Your task to perform on an android device: Open settings on Google Maps Image 0: 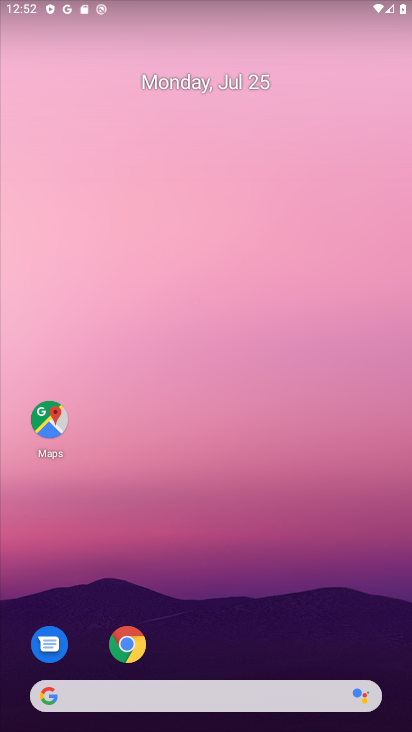
Step 0: click (46, 423)
Your task to perform on an android device: Open settings on Google Maps Image 1: 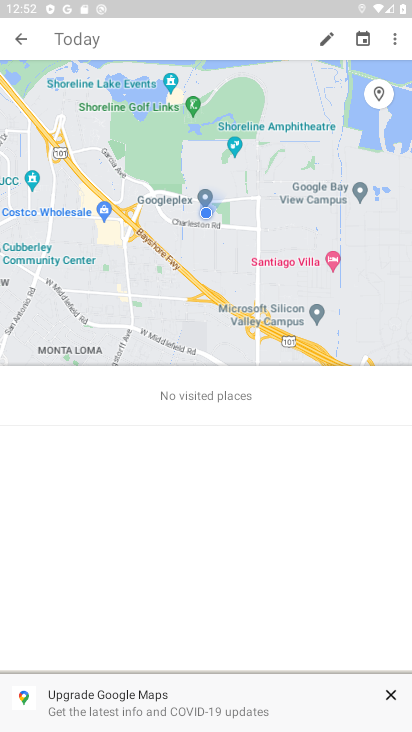
Step 1: click (15, 28)
Your task to perform on an android device: Open settings on Google Maps Image 2: 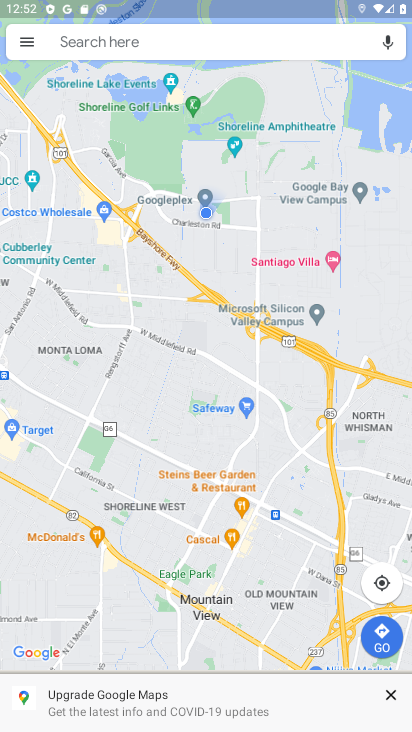
Step 2: click (18, 44)
Your task to perform on an android device: Open settings on Google Maps Image 3: 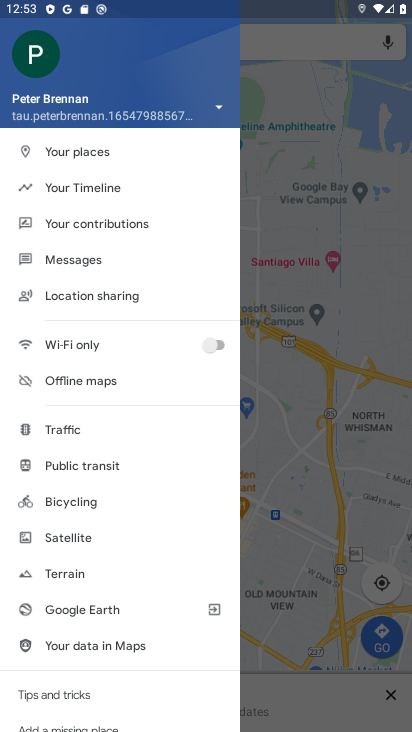
Step 3: drag from (96, 658) to (66, 356)
Your task to perform on an android device: Open settings on Google Maps Image 4: 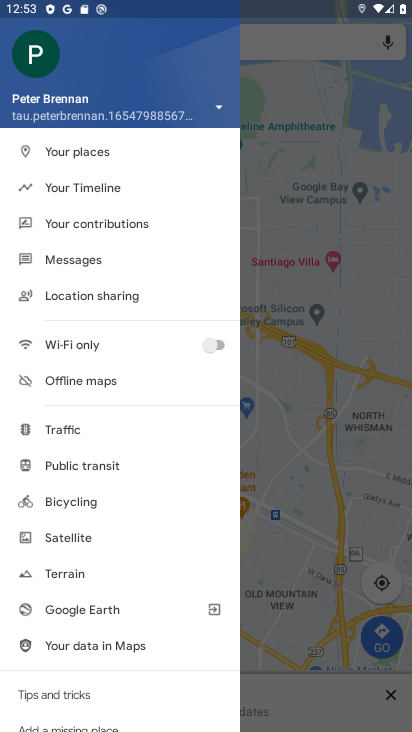
Step 4: drag from (60, 686) to (48, 238)
Your task to perform on an android device: Open settings on Google Maps Image 5: 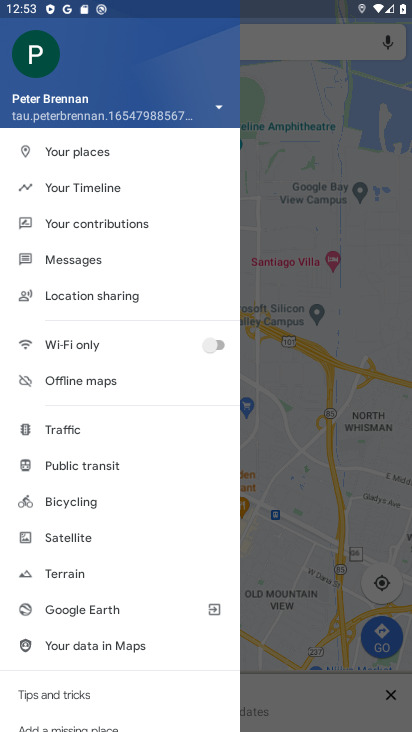
Step 5: drag from (189, 650) to (128, 283)
Your task to perform on an android device: Open settings on Google Maps Image 6: 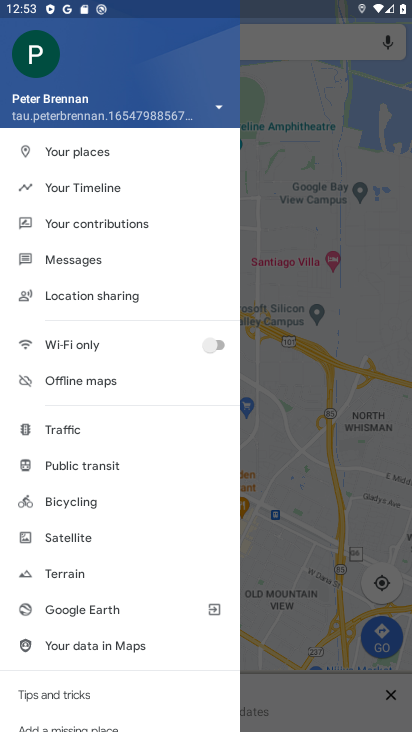
Step 6: drag from (155, 528) to (161, 49)
Your task to perform on an android device: Open settings on Google Maps Image 7: 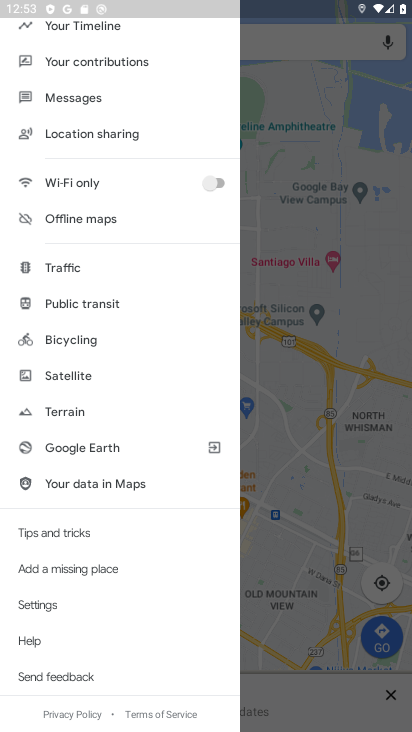
Step 7: click (19, 606)
Your task to perform on an android device: Open settings on Google Maps Image 8: 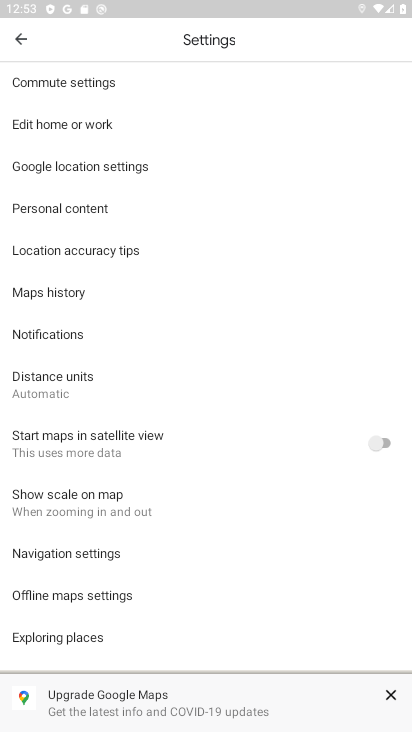
Step 8: task complete